Your task to perform on an android device: turn on the 12-hour format for clock Image 0: 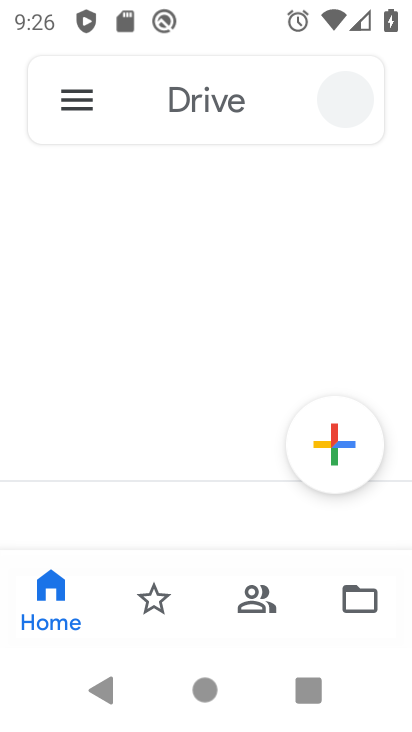
Step 0: drag from (301, 503) to (307, 140)
Your task to perform on an android device: turn on the 12-hour format for clock Image 1: 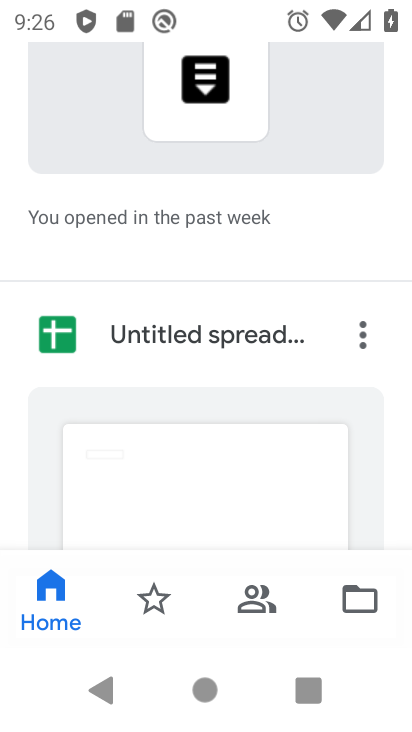
Step 1: press home button
Your task to perform on an android device: turn on the 12-hour format for clock Image 2: 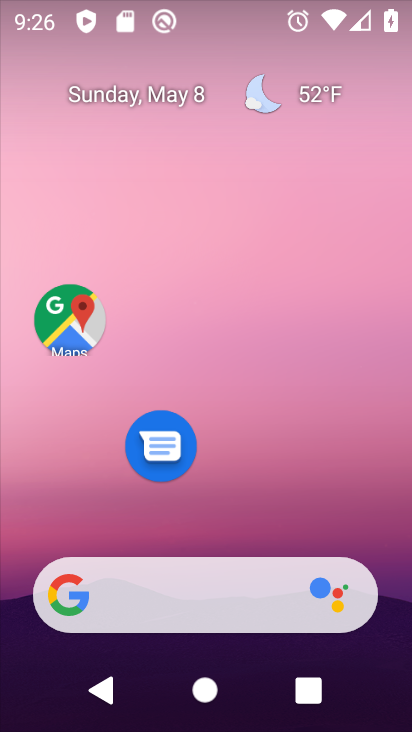
Step 2: drag from (320, 498) to (334, 67)
Your task to perform on an android device: turn on the 12-hour format for clock Image 3: 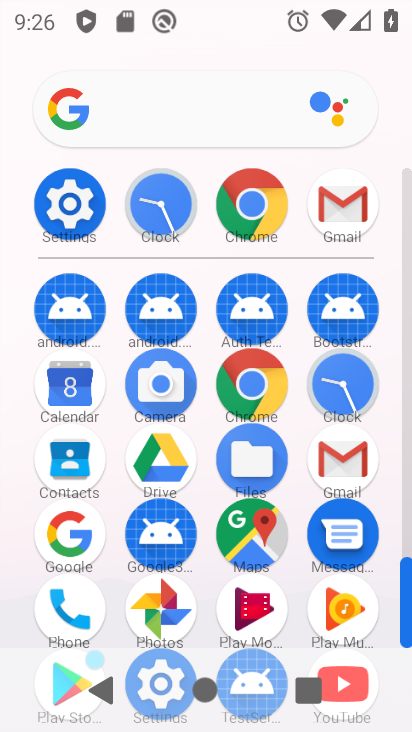
Step 3: click (162, 210)
Your task to perform on an android device: turn on the 12-hour format for clock Image 4: 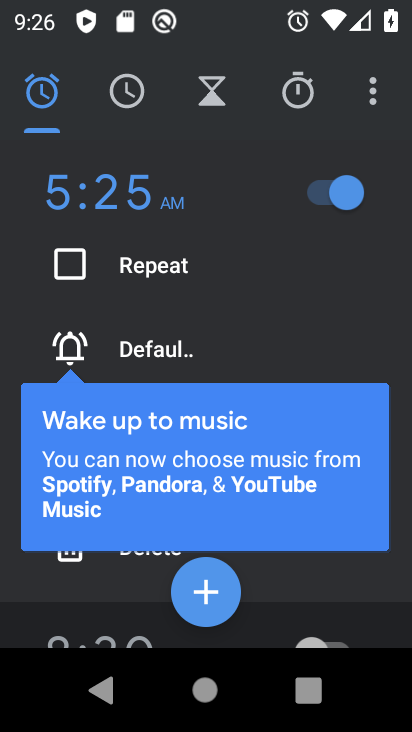
Step 4: click (376, 90)
Your task to perform on an android device: turn on the 12-hour format for clock Image 5: 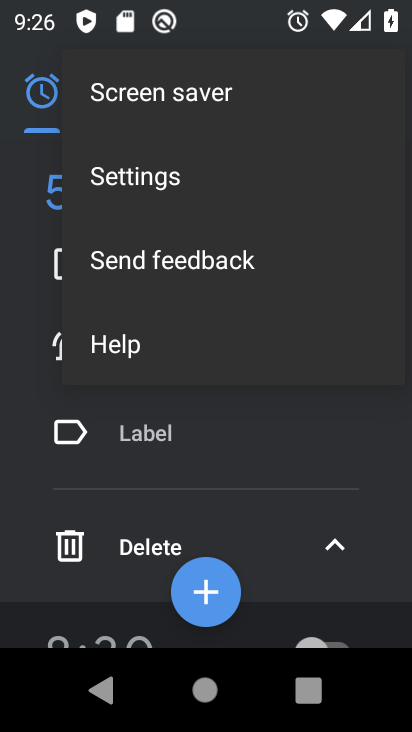
Step 5: click (179, 169)
Your task to perform on an android device: turn on the 12-hour format for clock Image 6: 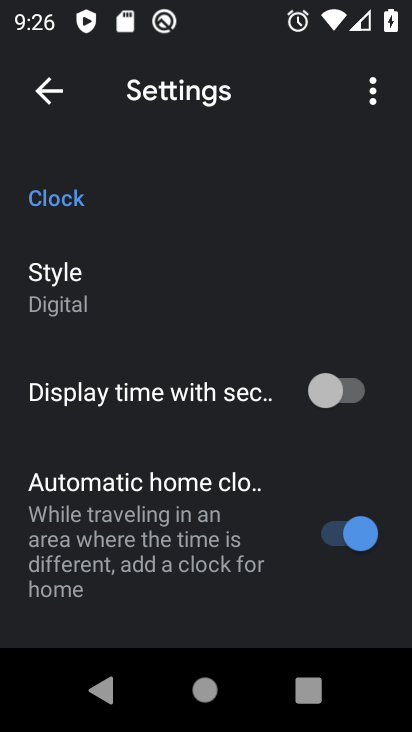
Step 6: drag from (199, 592) to (209, 271)
Your task to perform on an android device: turn on the 12-hour format for clock Image 7: 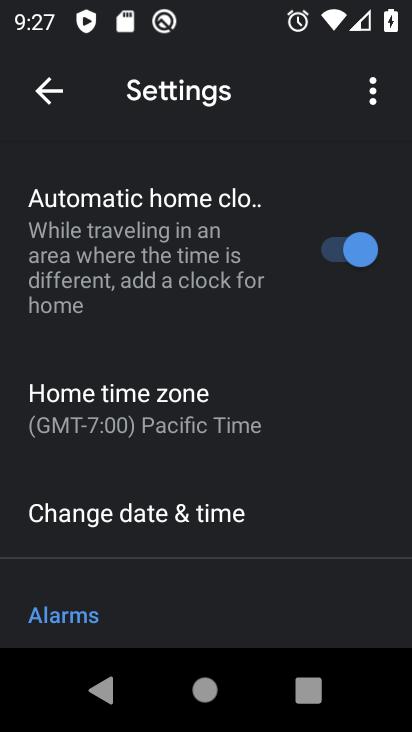
Step 7: drag from (228, 556) to (228, 276)
Your task to perform on an android device: turn on the 12-hour format for clock Image 8: 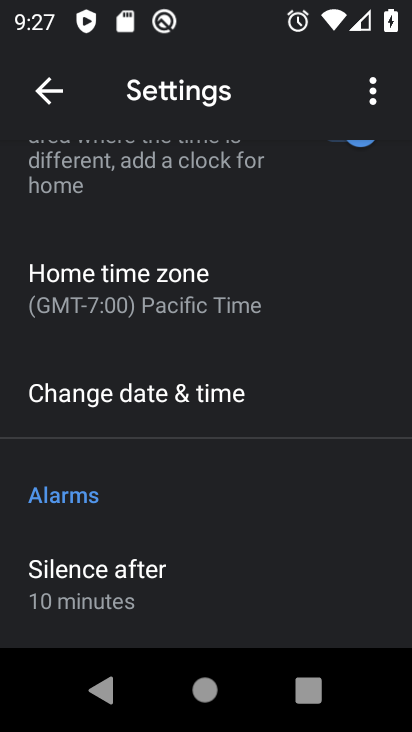
Step 8: drag from (264, 608) to (230, 330)
Your task to perform on an android device: turn on the 12-hour format for clock Image 9: 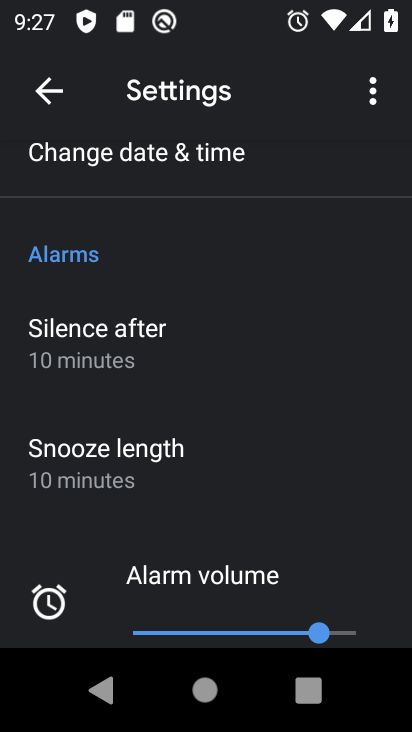
Step 9: drag from (248, 584) to (242, 278)
Your task to perform on an android device: turn on the 12-hour format for clock Image 10: 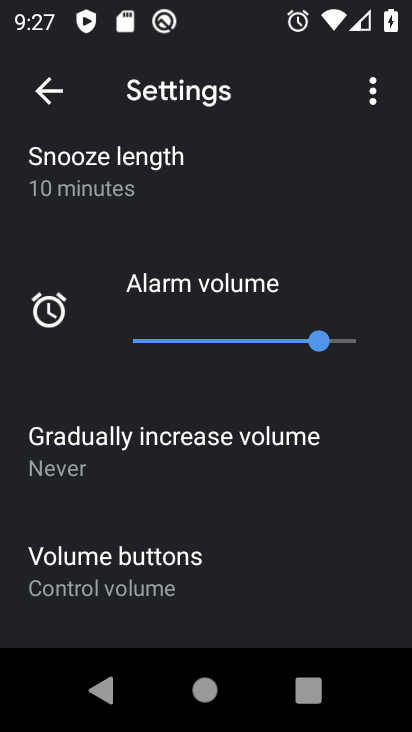
Step 10: drag from (262, 565) to (239, 311)
Your task to perform on an android device: turn on the 12-hour format for clock Image 11: 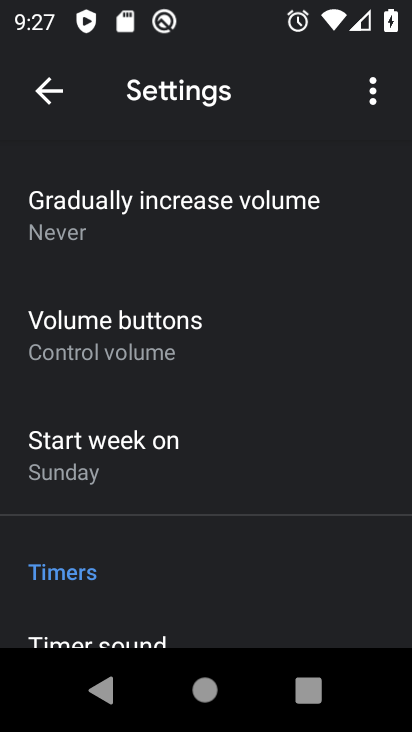
Step 11: drag from (246, 583) to (244, 366)
Your task to perform on an android device: turn on the 12-hour format for clock Image 12: 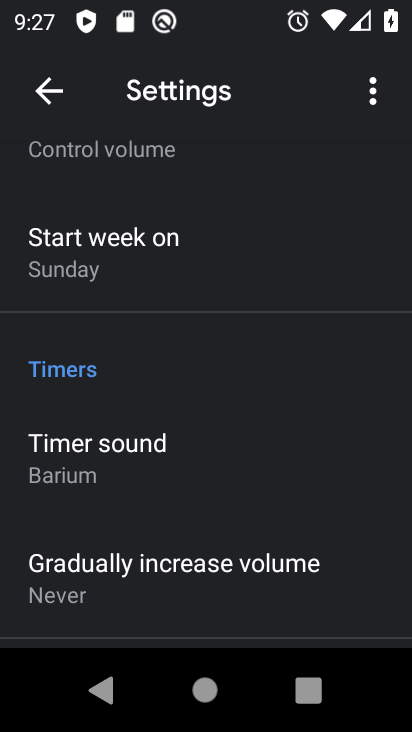
Step 12: drag from (252, 589) to (252, 401)
Your task to perform on an android device: turn on the 12-hour format for clock Image 13: 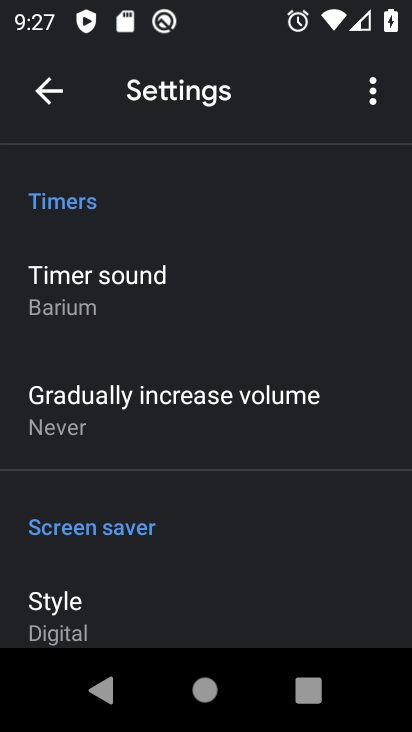
Step 13: drag from (252, 592) to (245, 394)
Your task to perform on an android device: turn on the 12-hour format for clock Image 14: 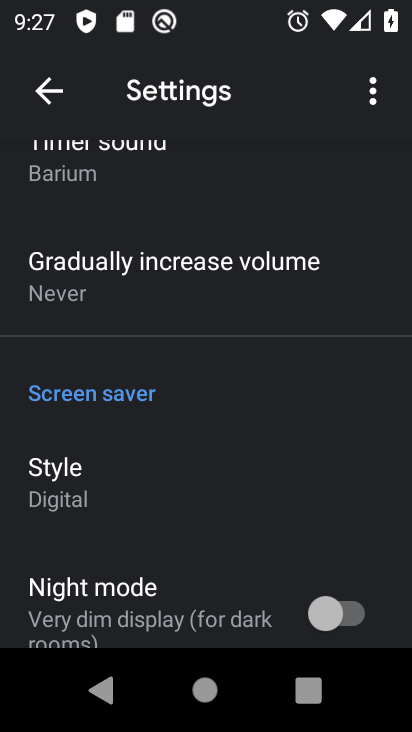
Step 14: drag from (299, 184) to (278, 643)
Your task to perform on an android device: turn on the 12-hour format for clock Image 15: 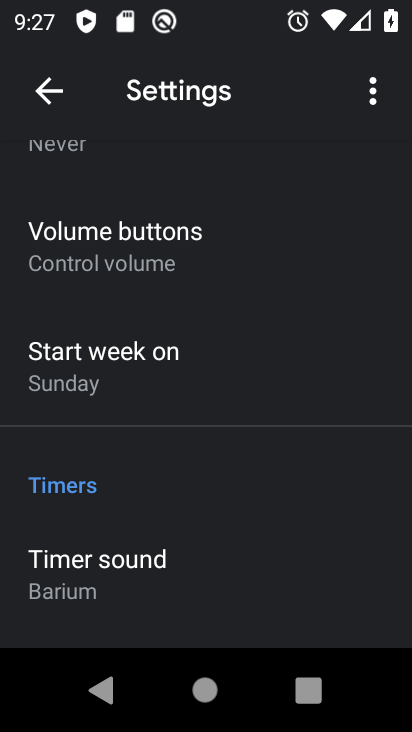
Step 15: drag from (285, 245) to (265, 711)
Your task to perform on an android device: turn on the 12-hour format for clock Image 16: 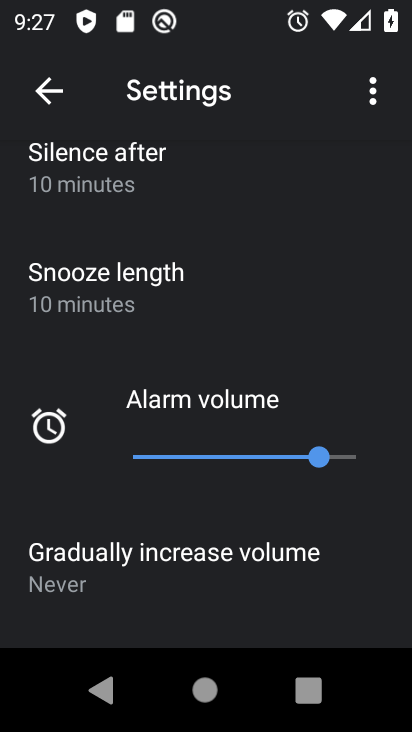
Step 16: drag from (295, 184) to (270, 560)
Your task to perform on an android device: turn on the 12-hour format for clock Image 17: 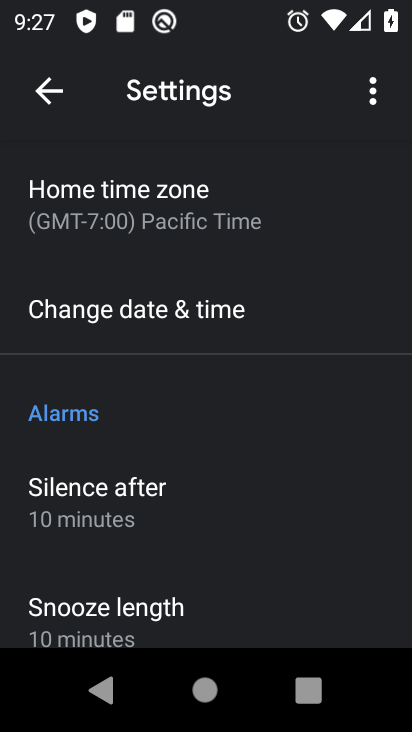
Step 17: click (184, 309)
Your task to perform on an android device: turn on the 12-hour format for clock Image 18: 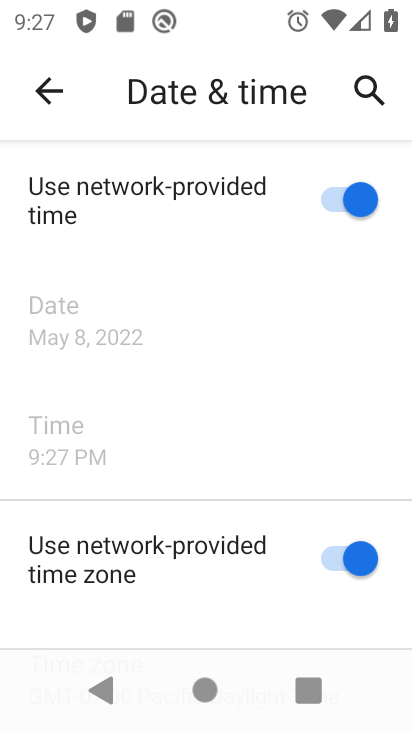
Step 18: drag from (198, 593) to (215, 295)
Your task to perform on an android device: turn on the 12-hour format for clock Image 19: 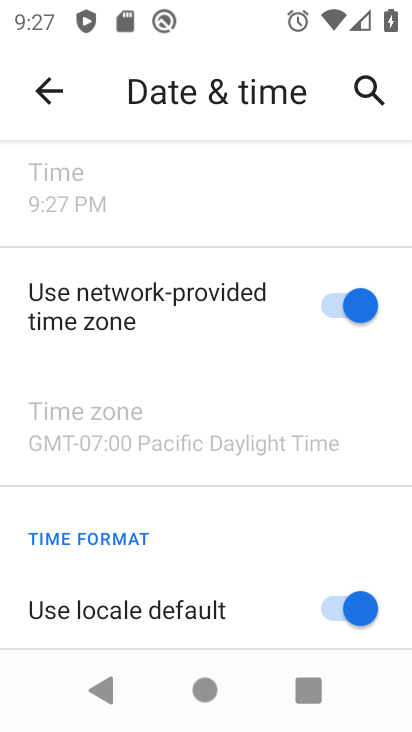
Step 19: drag from (222, 623) to (219, 422)
Your task to perform on an android device: turn on the 12-hour format for clock Image 20: 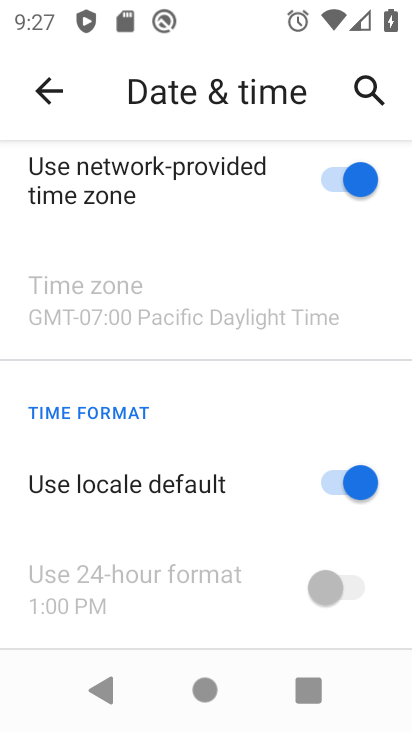
Step 20: drag from (213, 589) to (215, 402)
Your task to perform on an android device: turn on the 12-hour format for clock Image 21: 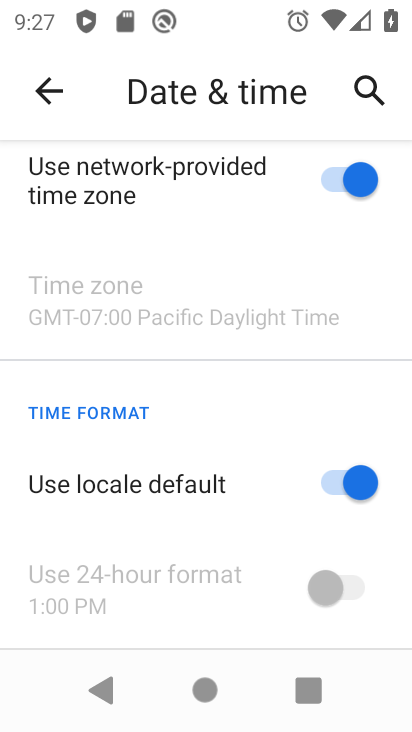
Step 21: drag from (201, 607) to (207, 478)
Your task to perform on an android device: turn on the 12-hour format for clock Image 22: 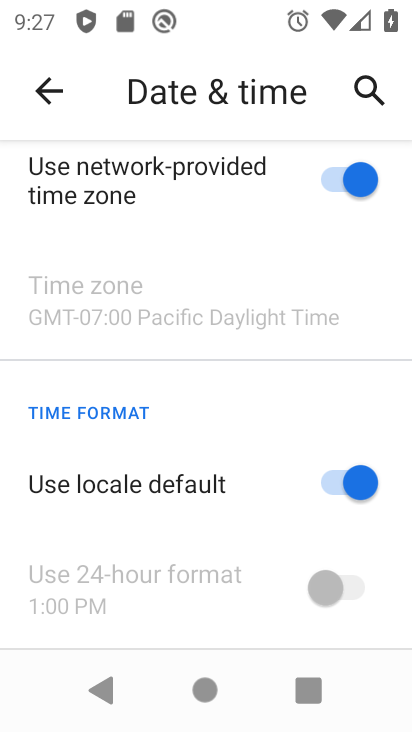
Step 22: drag from (236, 247) to (214, 644)
Your task to perform on an android device: turn on the 12-hour format for clock Image 23: 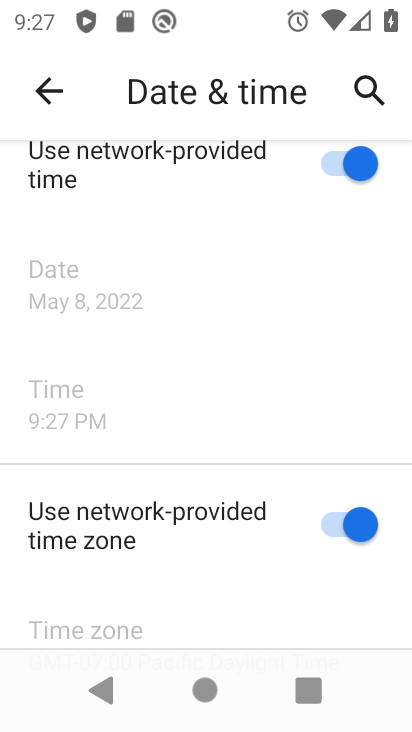
Step 23: drag from (219, 308) to (211, 715)
Your task to perform on an android device: turn on the 12-hour format for clock Image 24: 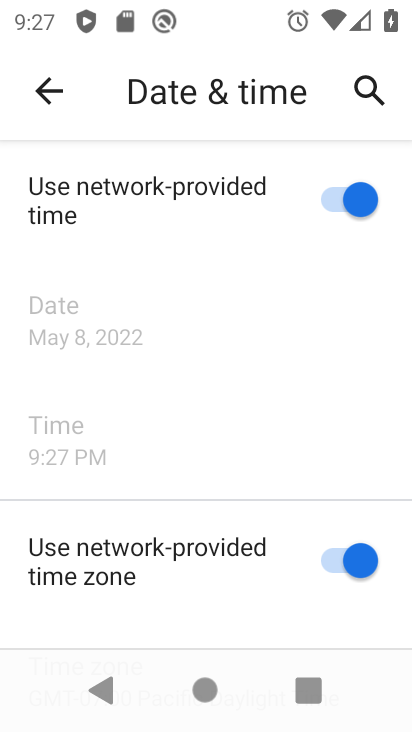
Step 24: drag from (188, 610) to (216, 256)
Your task to perform on an android device: turn on the 12-hour format for clock Image 25: 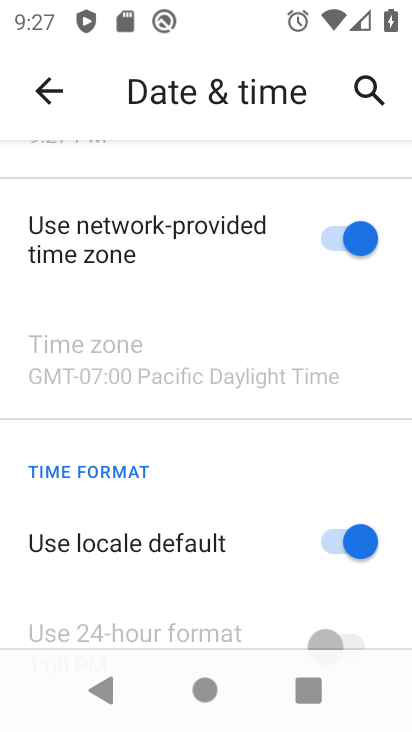
Step 25: drag from (262, 560) to (267, 328)
Your task to perform on an android device: turn on the 12-hour format for clock Image 26: 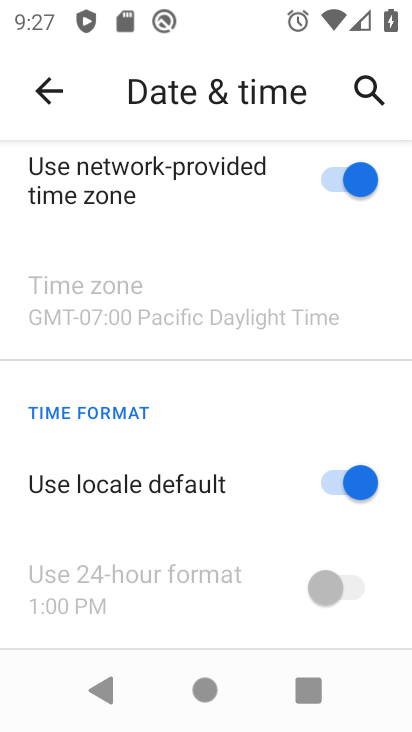
Step 26: click (345, 491)
Your task to perform on an android device: turn on the 12-hour format for clock Image 27: 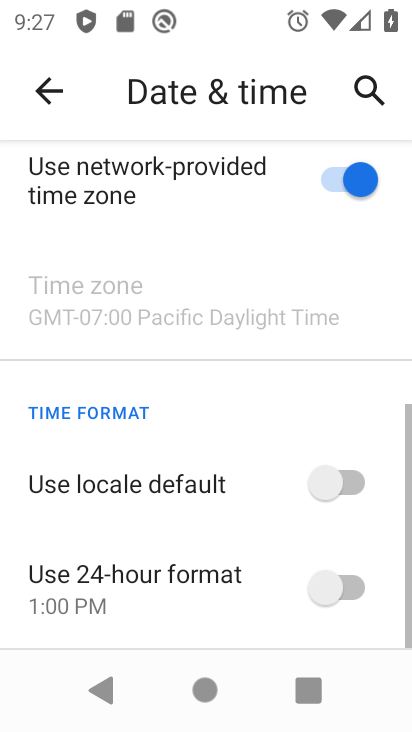
Step 27: click (334, 583)
Your task to perform on an android device: turn on the 12-hour format for clock Image 28: 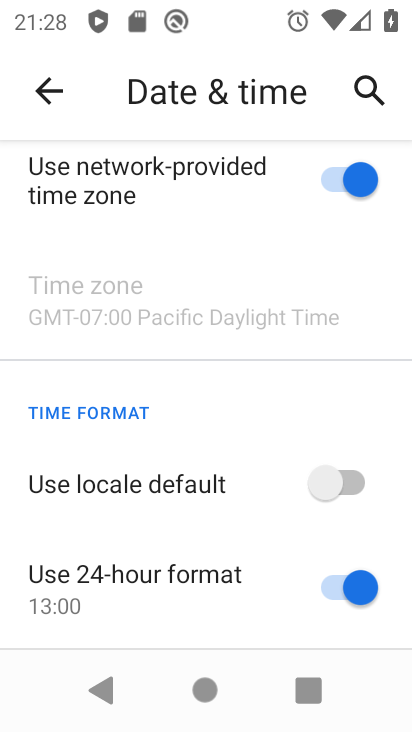
Step 28: task complete